Your task to perform on an android device: Do I have any events tomorrow? Image 0: 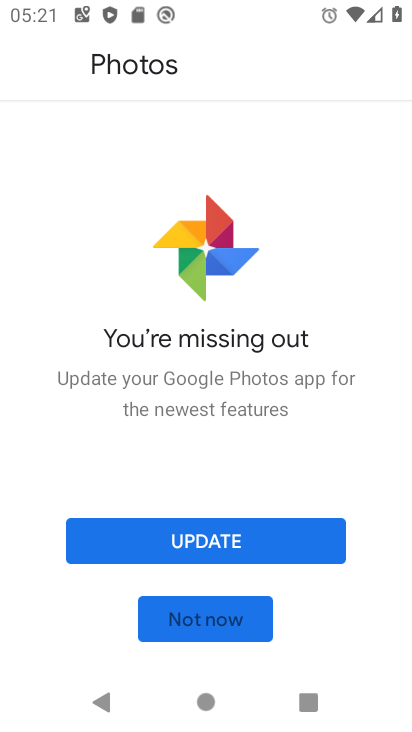
Step 0: press home button
Your task to perform on an android device: Do I have any events tomorrow? Image 1: 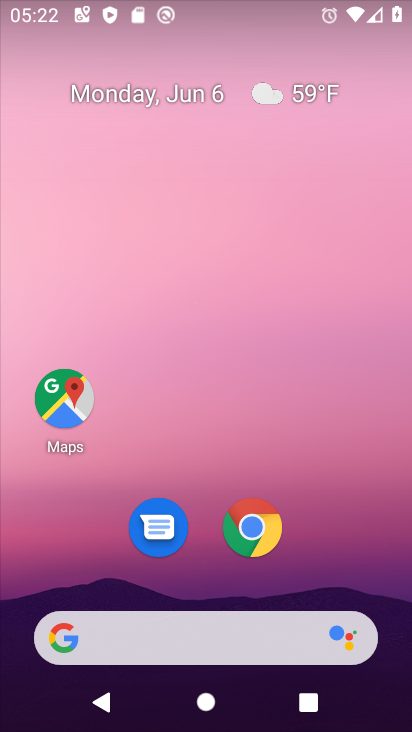
Step 1: drag from (388, 712) to (333, 160)
Your task to perform on an android device: Do I have any events tomorrow? Image 2: 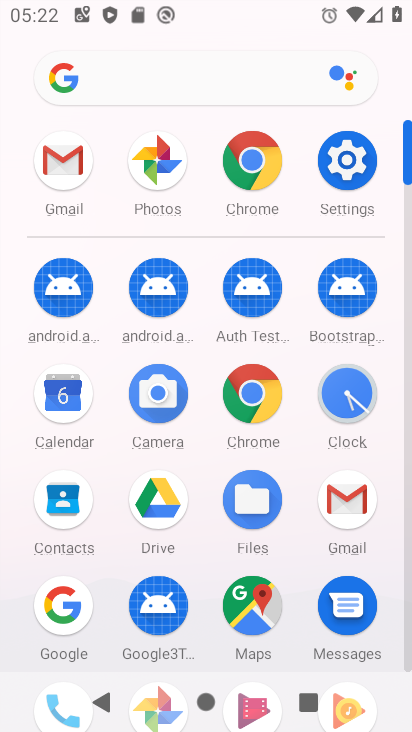
Step 2: click (50, 407)
Your task to perform on an android device: Do I have any events tomorrow? Image 3: 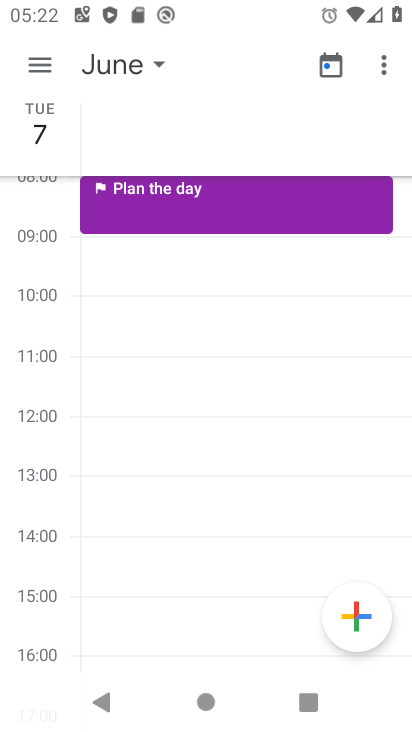
Step 3: click (160, 55)
Your task to perform on an android device: Do I have any events tomorrow? Image 4: 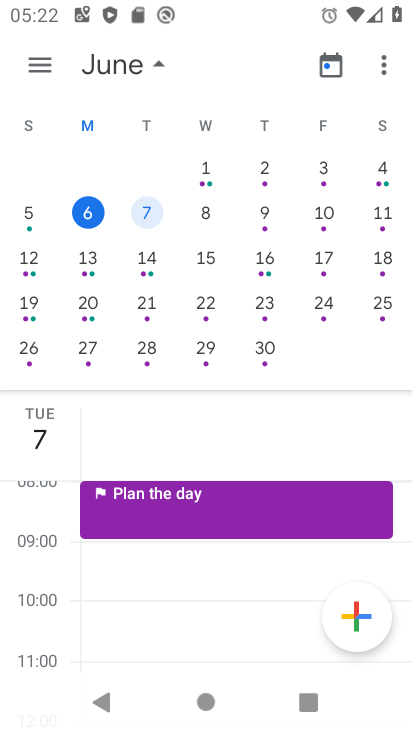
Step 4: click (149, 205)
Your task to perform on an android device: Do I have any events tomorrow? Image 5: 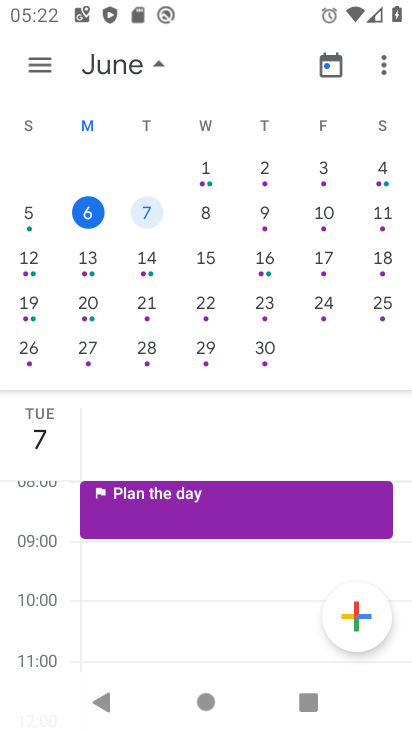
Step 5: click (28, 63)
Your task to perform on an android device: Do I have any events tomorrow? Image 6: 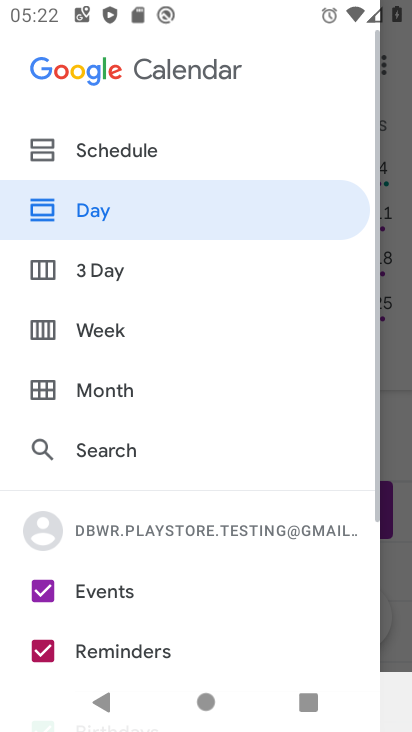
Step 6: click (85, 146)
Your task to perform on an android device: Do I have any events tomorrow? Image 7: 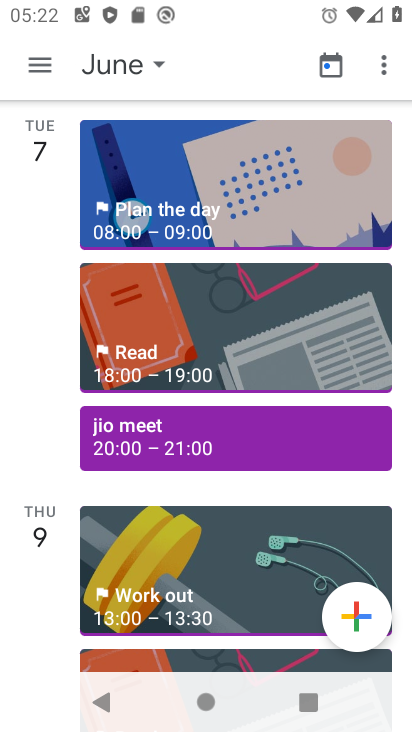
Step 7: task complete